Your task to perform on an android device: turn off notifications settings in the gmail app Image 0: 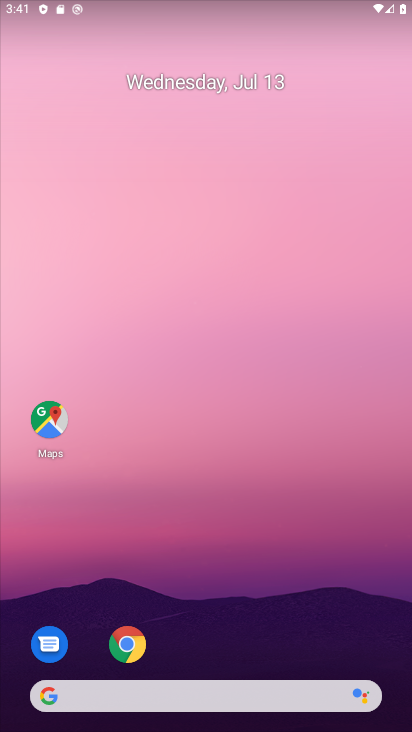
Step 0: drag from (227, 647) to (151, 55)
Your task to perform on an android device: turn off notifications settings in the gmail app Image 1: 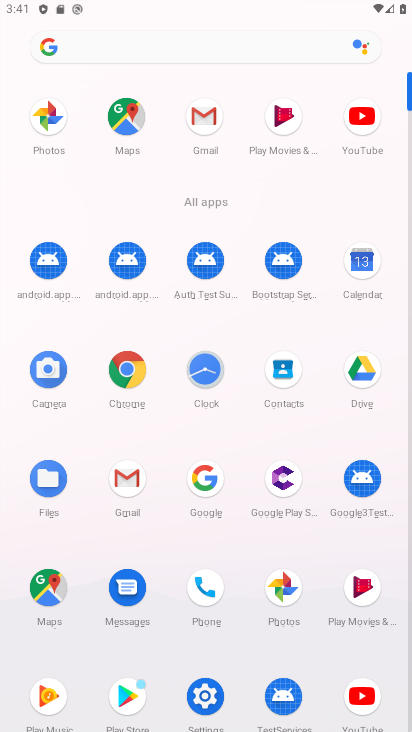
Step 1: click (196, 113)
Your task to perform on an android device: turn off notifications settings in the gmail app Image 2: 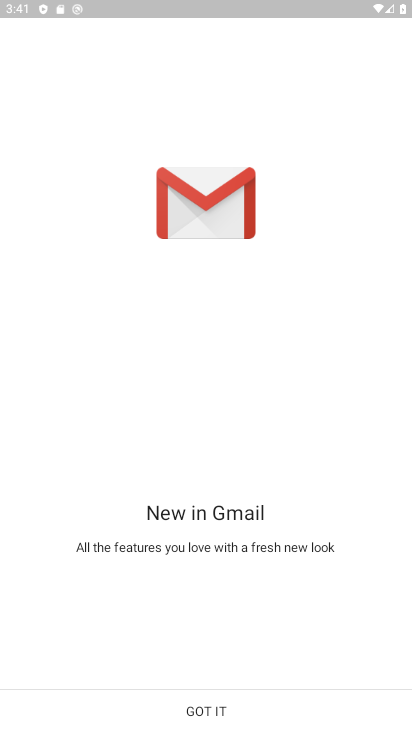
Step 2: click (217, 717)
Your task to perform on an android device: turn off notifications settings in the gmail app Image 3: 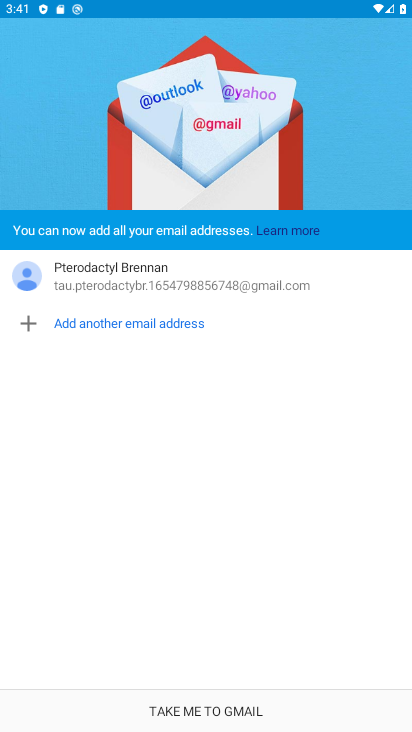
Step 3: click (219, 714)
Your task to perform on an android device: turn off notifications settings in the gmail app Image 4: 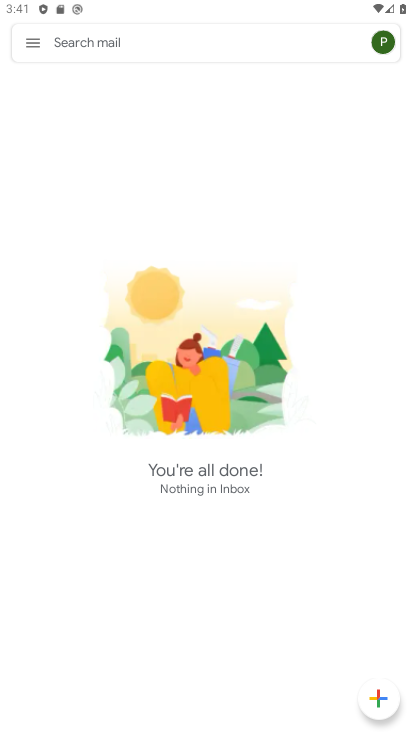
Step 4: click (37, 42)
Your task to perform on an android device: turn off notifications settings in the gmail app Image 5: 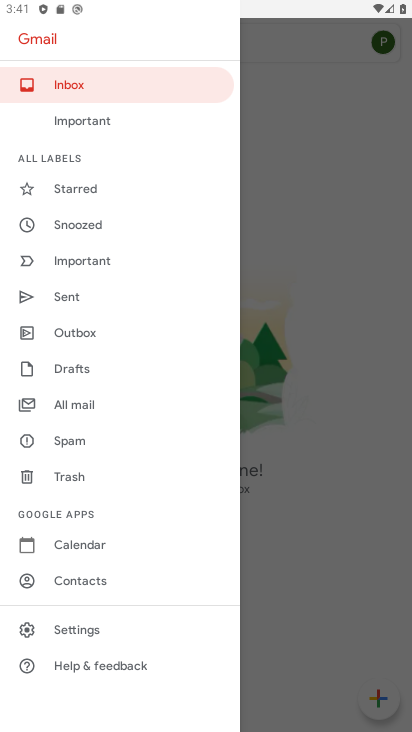
Step 5: click (70, 627)
Your task to perform on an android device: turn off notifications settings in the gmail app Image 6: 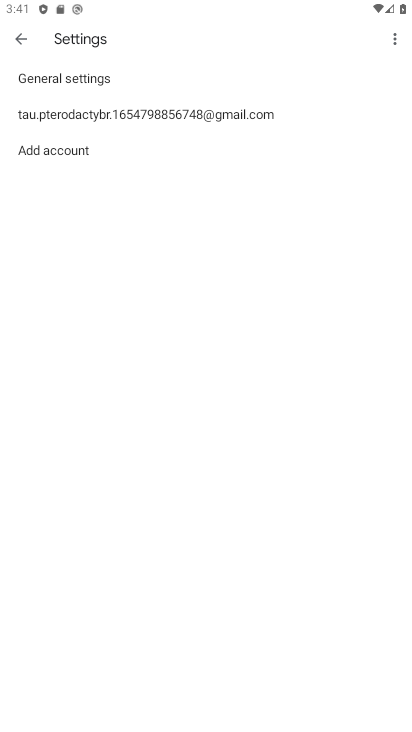
Step 6: click (152, 109)
Your task to perform on an android device: turn off notifications settings in the gmail app Image 7: 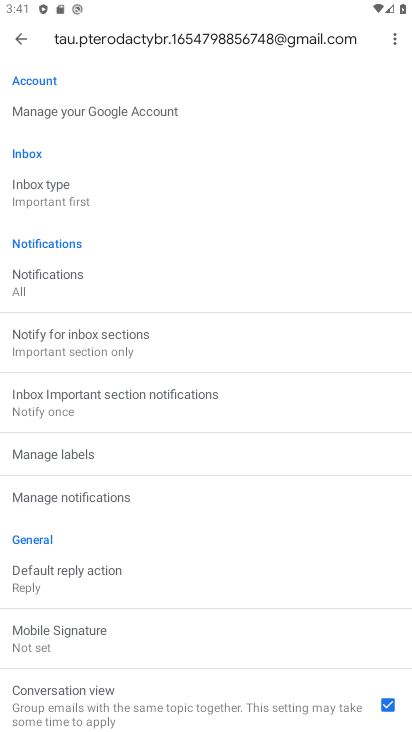
Step 7: click (99, 503)
Your task to perform on an android device: turn off notifications settings in the gmail app Image 8: 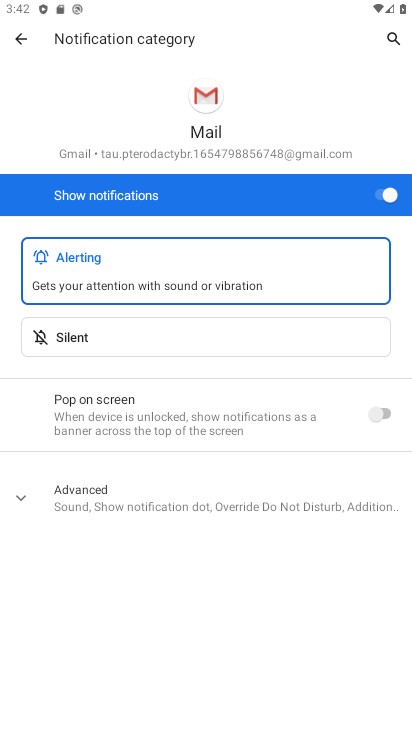
Step 8: task complete